Your task to perform on an android device: Open internet settings Image 0: 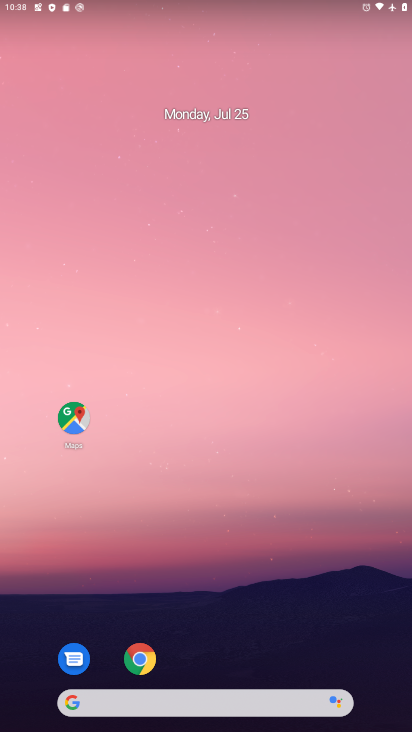
Step 0: drag from (208, 669) to (184, 120)
Your task to perform on an android device: Open internet settings Image 1: 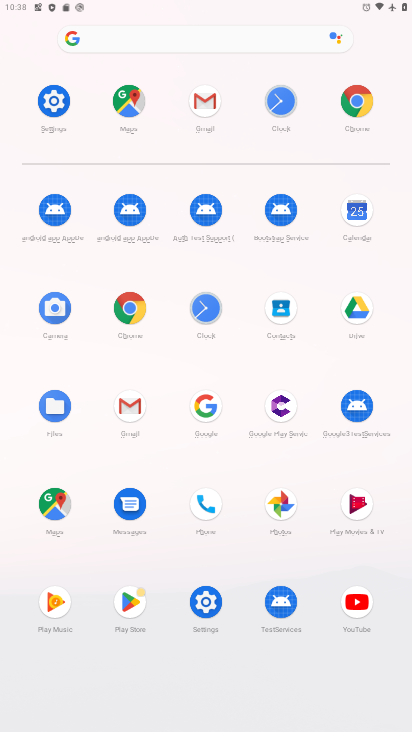
Step 1: click (68, 108)
Your task to perform on an android device: Open internet settings Image 2: 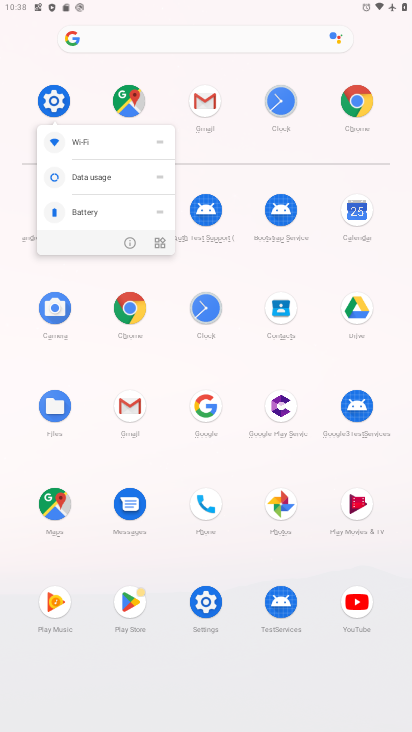
Step 2: click (56, 97)
Your task to perform on an android device: Open internet settings Image 3: 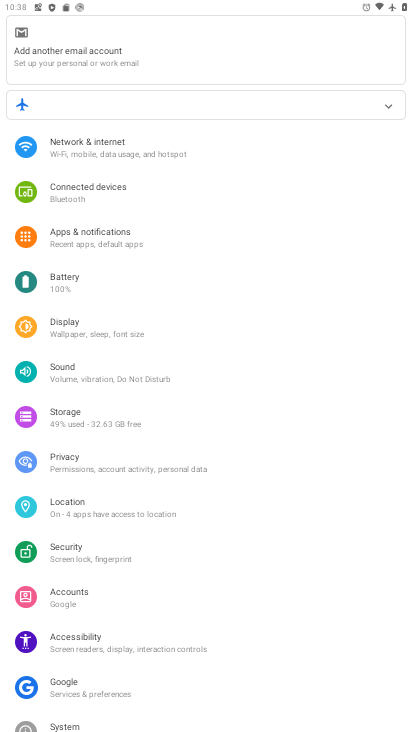
Step 3: click (73, 155)
Your task to perform on an android device: Open internet settings Image 4: 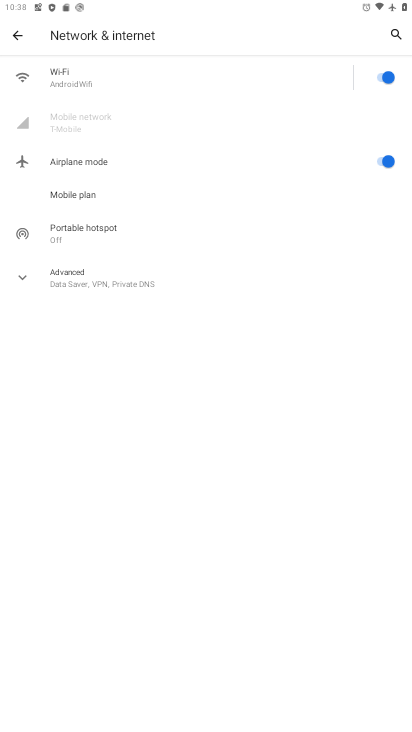
Step 4: click (108, 280)
Your task to perform on an android device: Open internet settings Image 5: 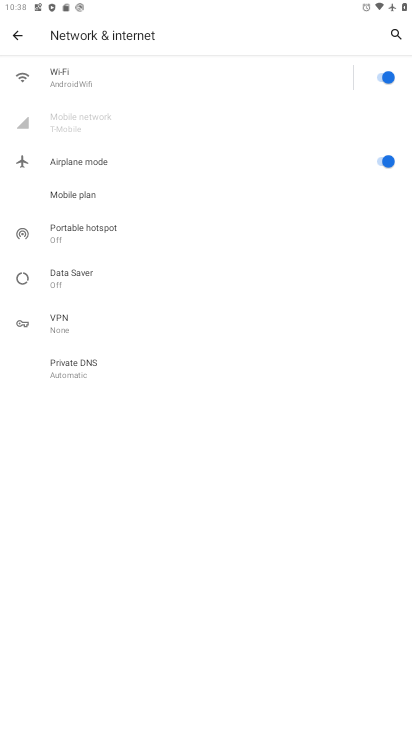
Step 5: task complete